Your task to perform on an android device: toggle improve location accuracy Image 0: 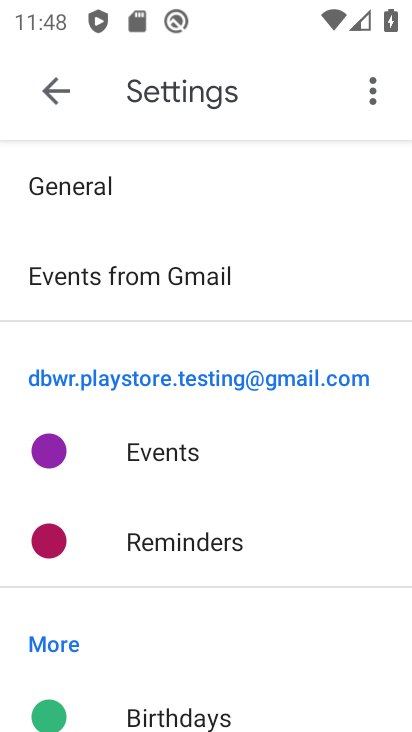
Step 0: press back button
Your task to perform on an android device: toggle improve location accuracy Image 1: 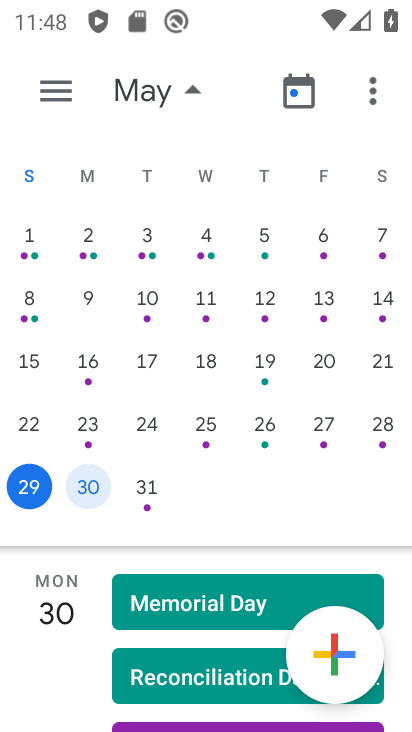
Step 1: press home button
Your task to perform on an android device: toggle improve location accuracy Image 2: 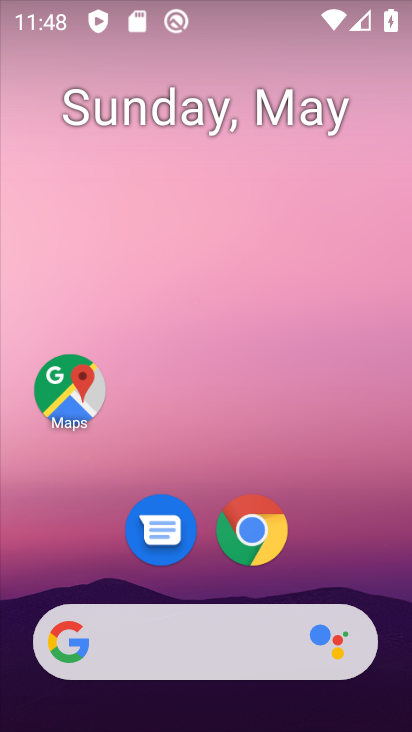
Step 2: drag from (202, 457) to (256, 37)
Your task to perform on an android device: toggle improve location accuracy Image 3: 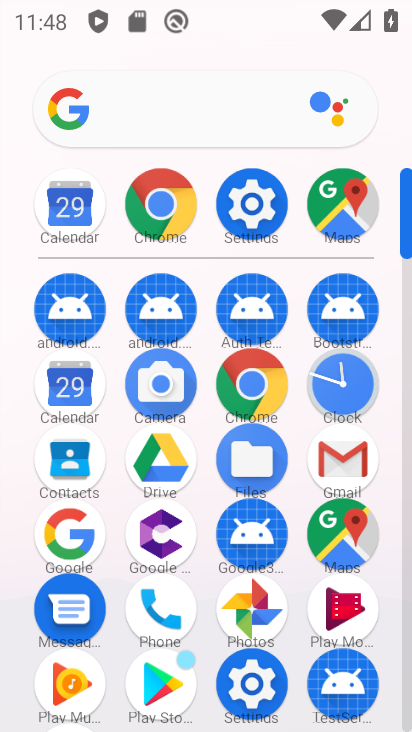
Step 3: click (250, 198)
Your task to perform on an android device: toggle improve location accuracy Image 4: 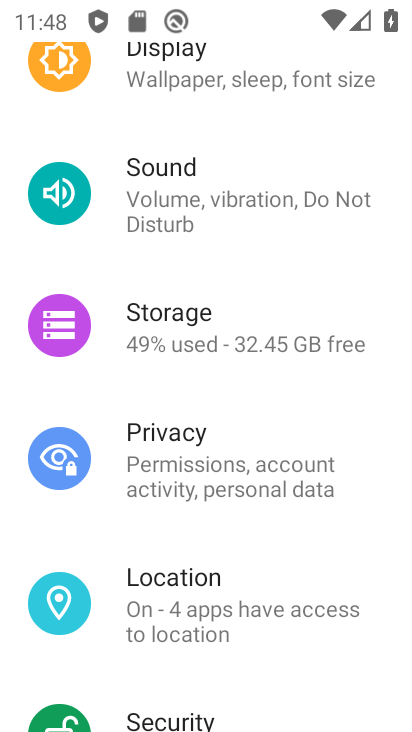
Step 4: click (195, 620)
Your task to perform on an android device: toggle improve location accuracy Image 5: 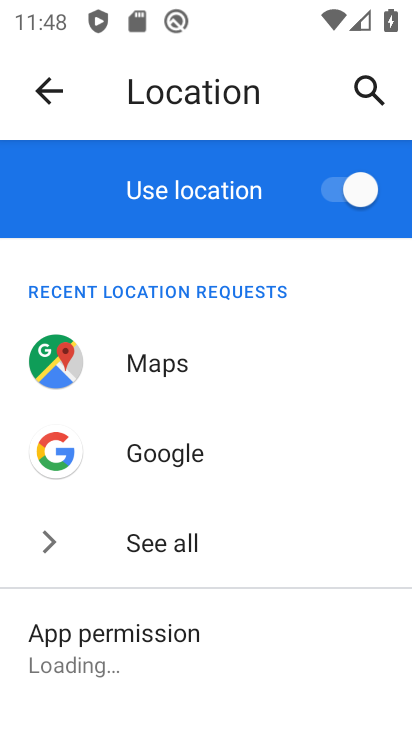
Step 5: drag from (167, 682) to (258, 205)
Your task to perform on an android device: toggle improve location accuracy Image 6: 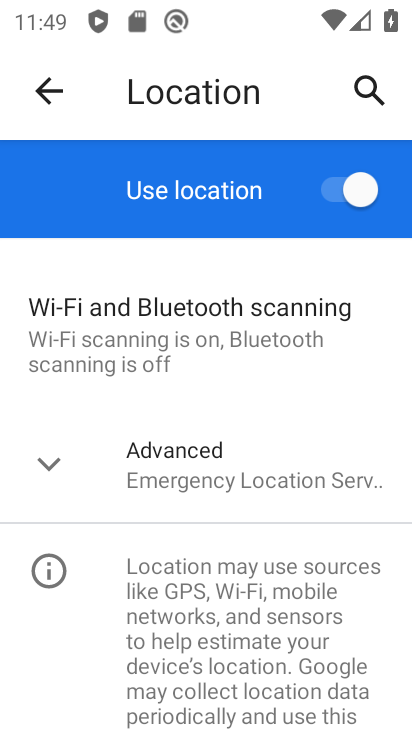
Step 6: click (167, 463)
Your task to perform on an android device: toggle improve location accuracy Image 7: 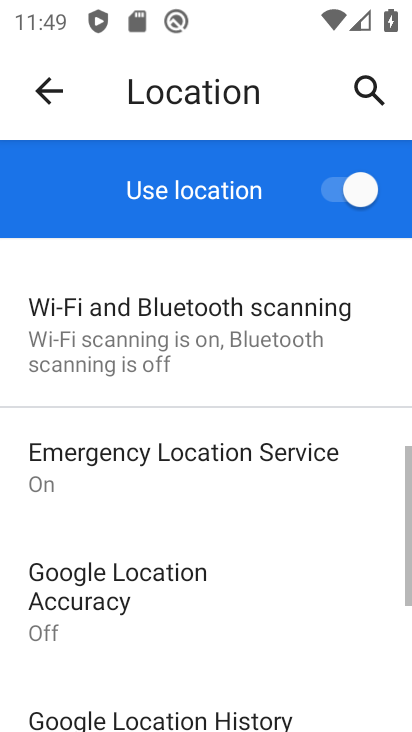
Step 7: drag from (174, 590) to (262, 241)
Your task to perform on an android device: toggle improve location accuracy Image 8: 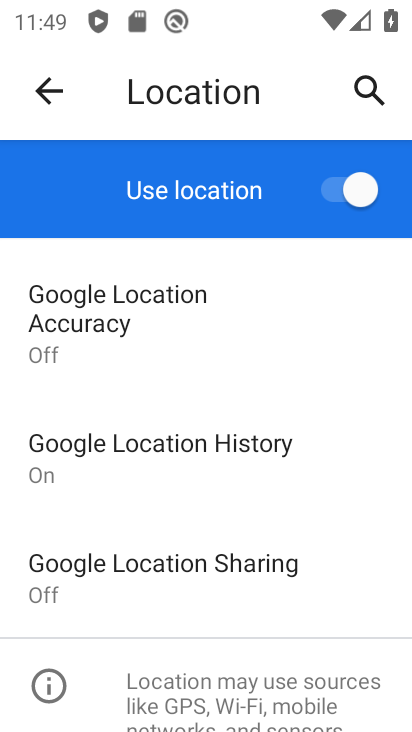
Step 8: click (104, 294)
Your task to perform on an android device: toggle improve location accuracy Image 9: 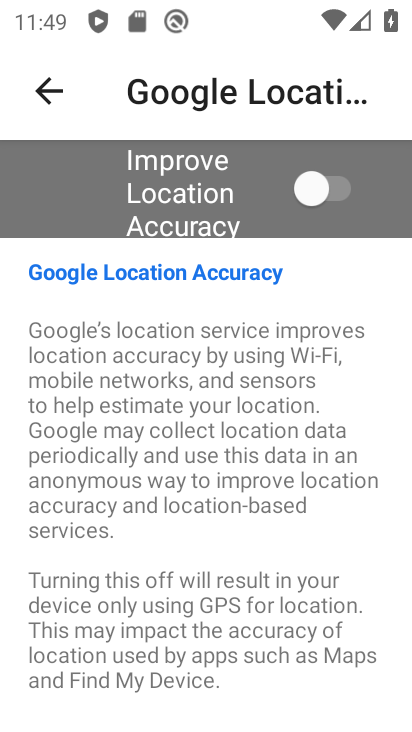
Step 9: click (307, 184)
Your task to perform on an android device: toggle improve location accuracy Image 10: 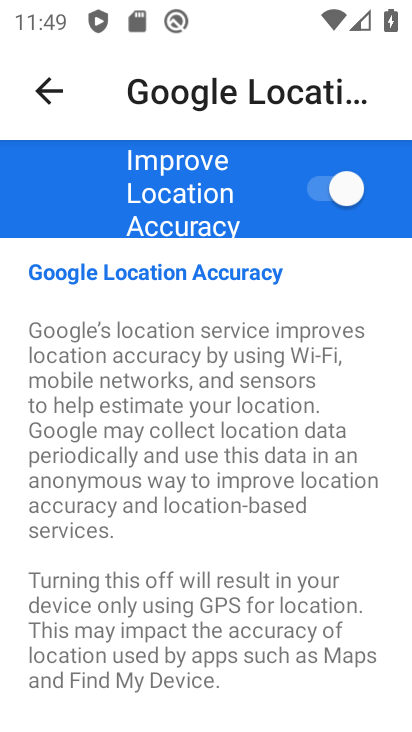
Step 10: task complete